Your task to perform on an android device: Open Android settings Image 0: 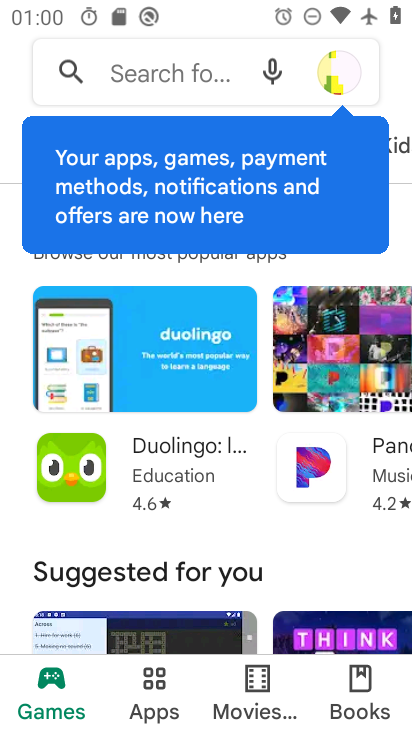
Step 0: press home button
Your task to perform on an android device: Open Android settings Image 1: 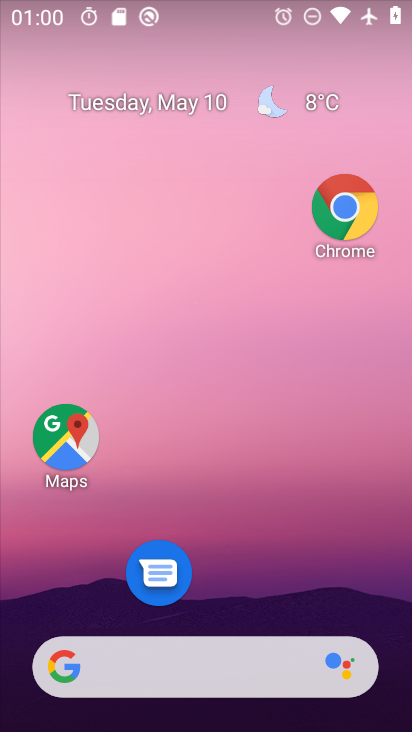
Step 1: drag from (332, 590) to (326, 125)
Your task to perform on an android device: Open Android settings Image 2: 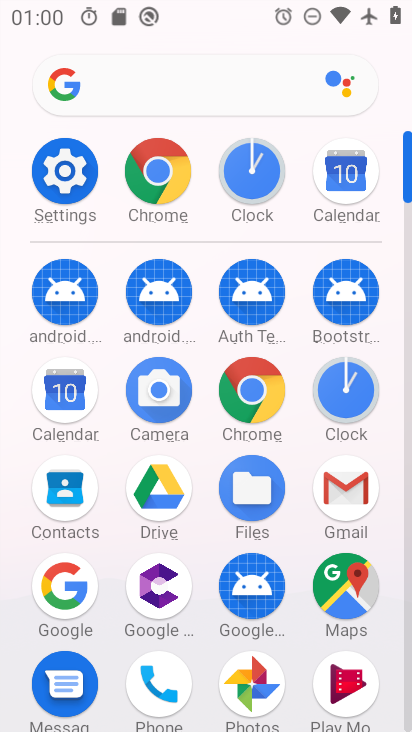
Step 2: click (75, 172)
Your task to perform on an android device: Open Android settings Image 3: 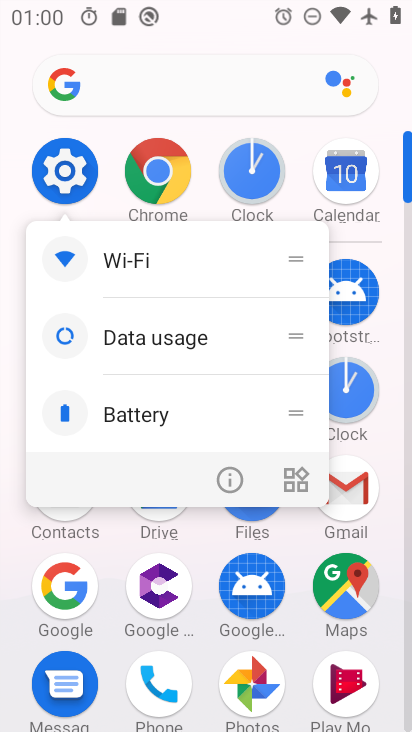
Step 3: click (70, 173)
Your task to perform on an android device: Open Android settings Image 4: 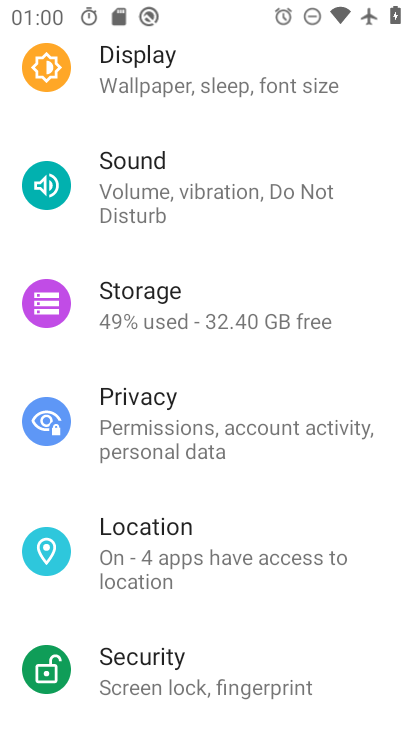
Step 4: task complete